Your task to perform on an android device: Open Reddit.com Image 0: 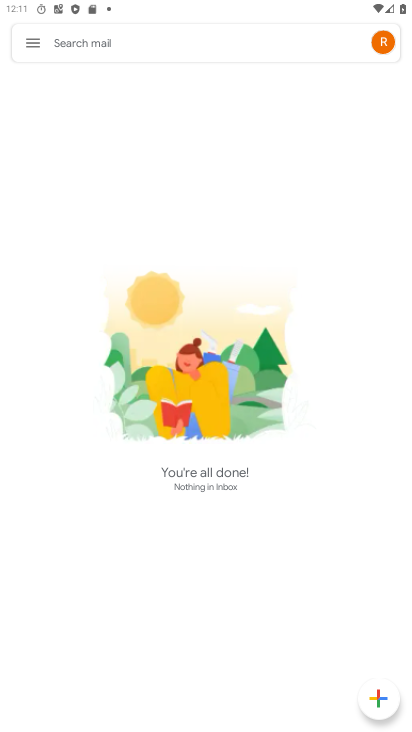
Step 0: press home button
Your task to perform on an android device: Open Reddit.com Image 1: 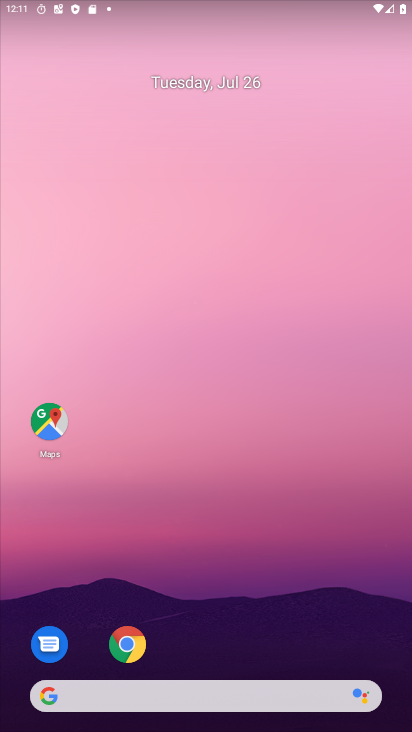
Step 1: drag from (196, 613) to (127, 112)
Your task to perform on an android device: Open Reddit.com Image 2: 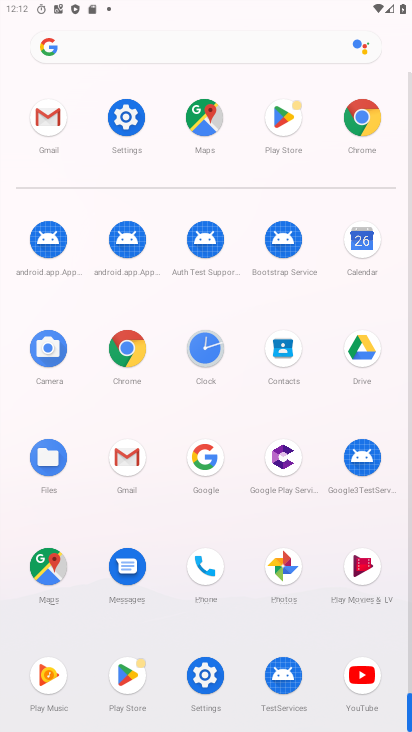
Step 2: click (358, 127)
Your task to perform on an android device: Open Reddit.com Image 3: 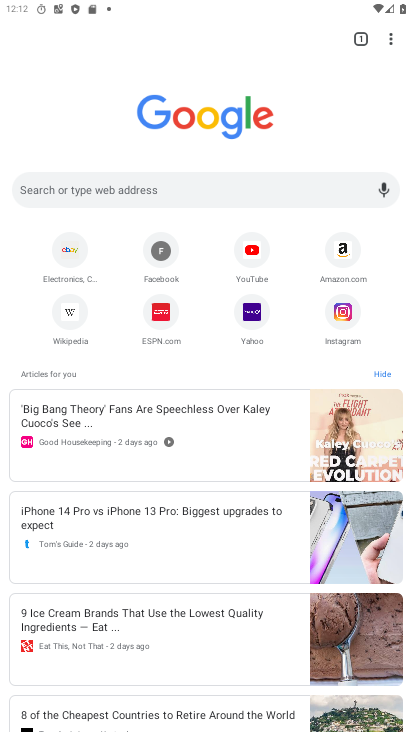
Step 3: click (152, 172)
Your task to perform on an android device: Open Reddit.com Image 4: 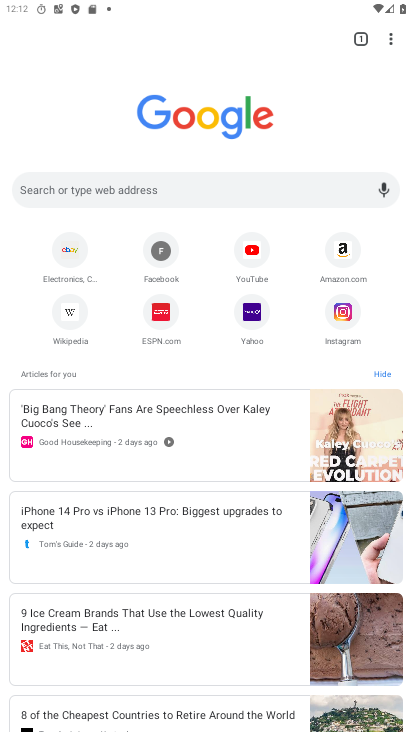
Step 4: click (163, 182)
Your task to perform on an android device: Open Reddit.com Image 5: 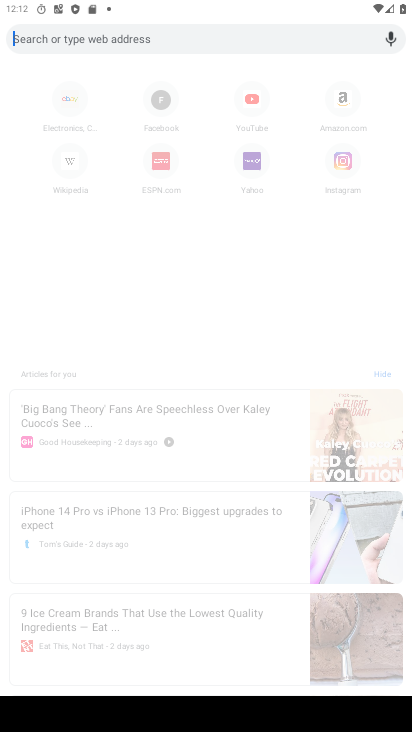
Step 5: type "Reddit.com"
Your task to perform on an android device: Open Reddit.com Image 6: 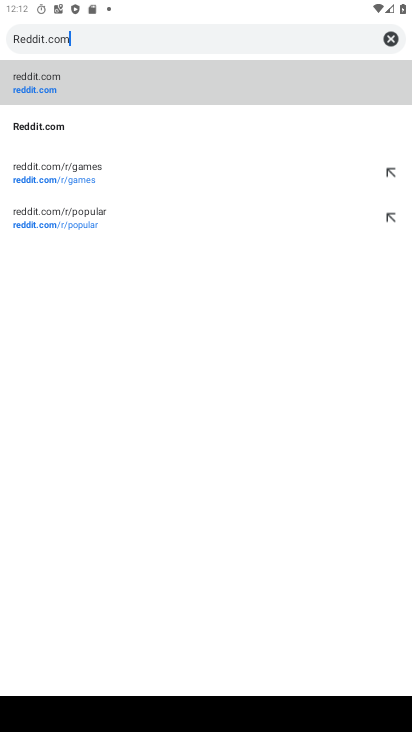
Step 6: click (34, 87)
Your task to perform on an android device: Open Reddit.com Image 7: 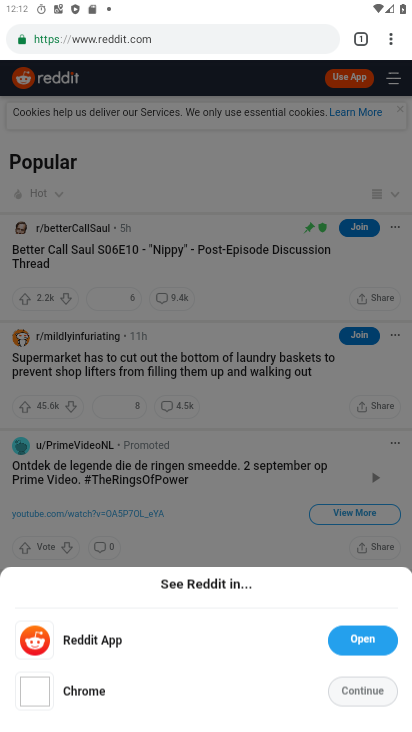
Step 7: task complete